Your task to perform on an android device: check google app version Image 0: 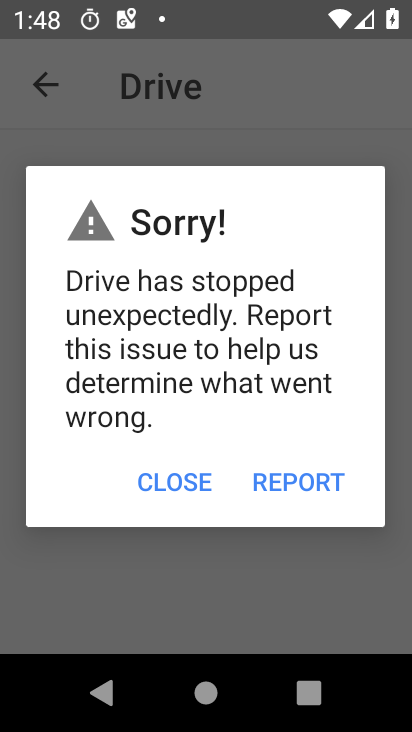
Step 0: click (262, 466)
Your task to perform on an android device: check google app version Image 1: 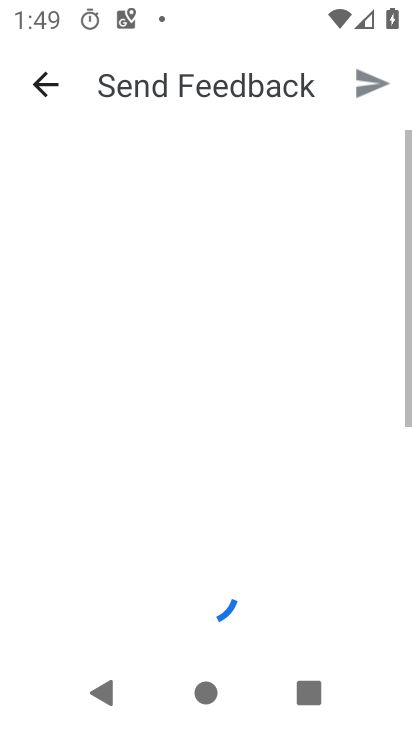
Step 1: click (273, 457)
Your task to perform on an android device: check google app version Image 2: 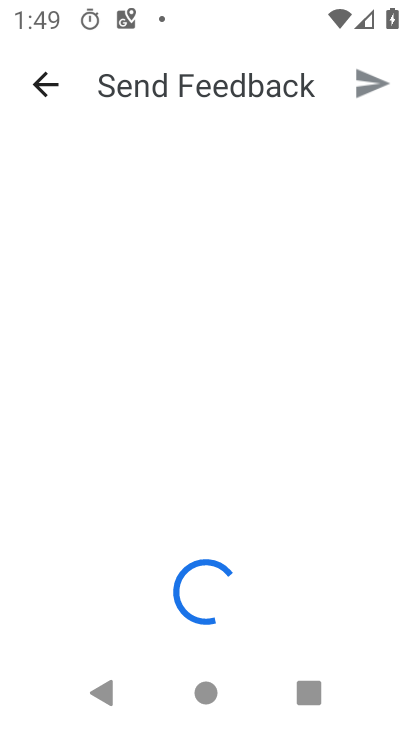
Step 2: press home button
Your task to perform on an android device: check google app version Image 3: 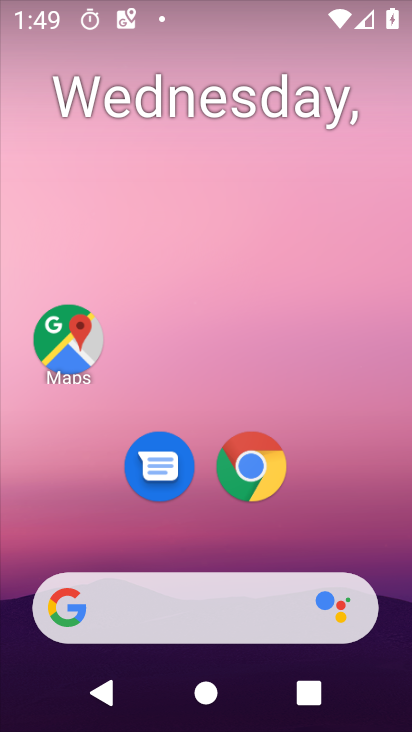
Step 3: click (241, 475)
Your task to perform on an android device: check google app version Image 4: 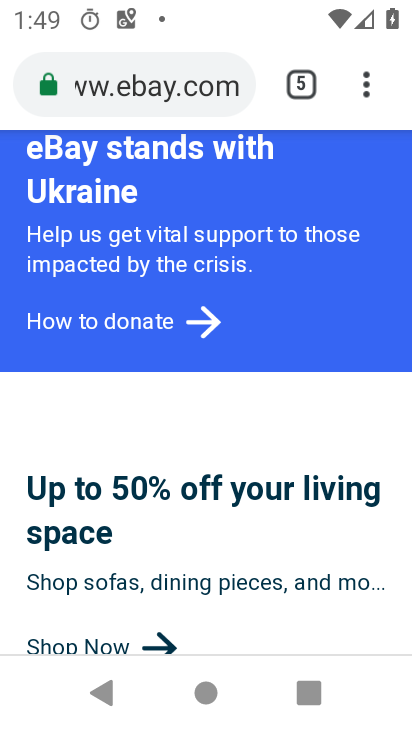
Step 4: press back button
Your task to perform on an android device: check google app version Image 5: 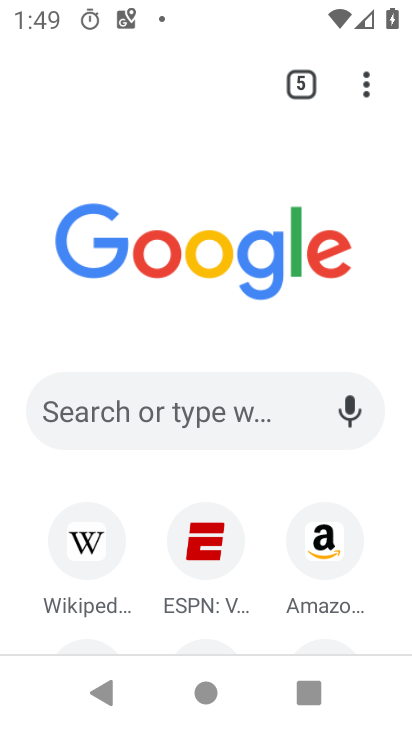
Step 5: press home button
Your task to perform on an android device: check google app version Image 6: 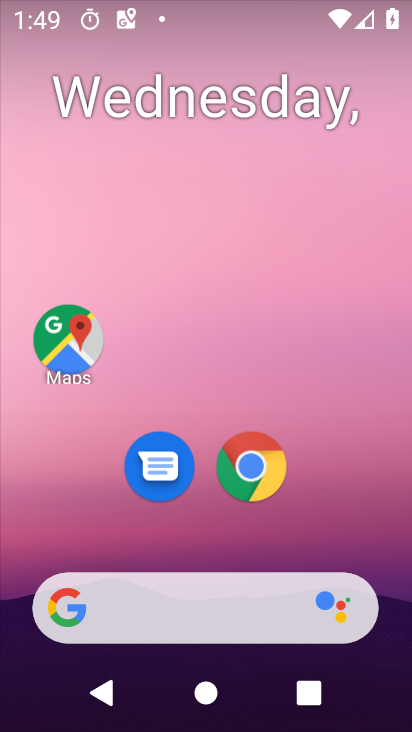
Step 6: click (178, 595)
Your task to perform on an android device: check google app version Image 7: 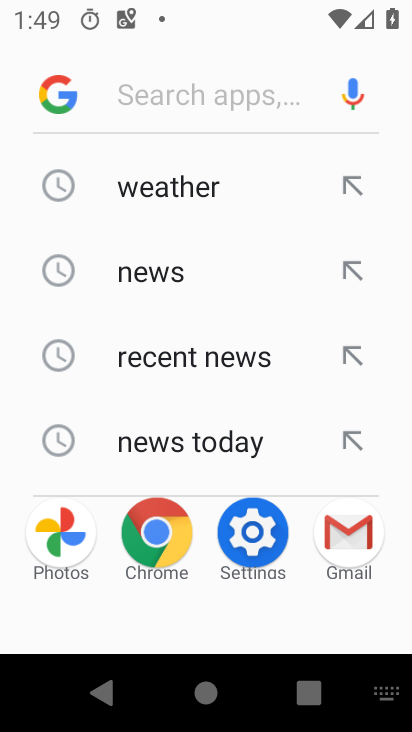
Step 7: click (67, 110)
Your task to perform on an android device: check google app version Image 8: 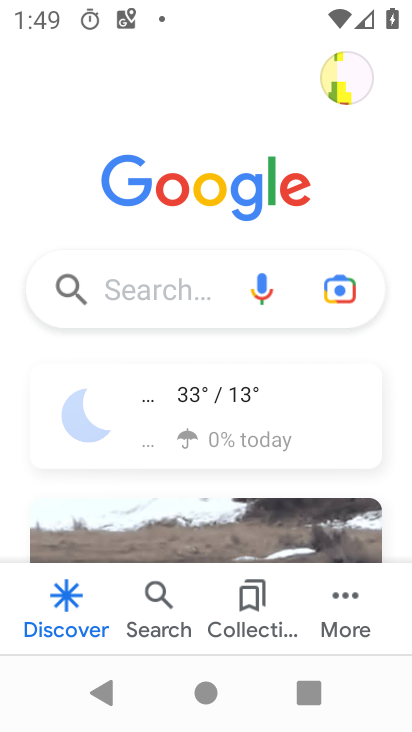
Step 8: click (340, 614)
Your task to perform on an android device: check google app version Image 9: 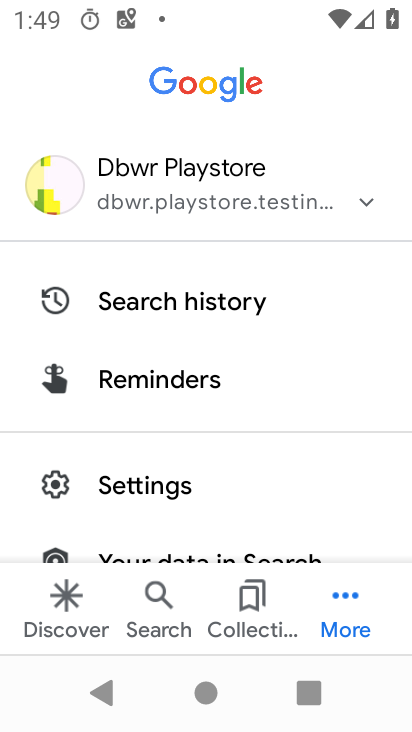
Step 9: drag from (288, 497) to (297, 227)
Your task to perform on an android device: check google app version Image 10: 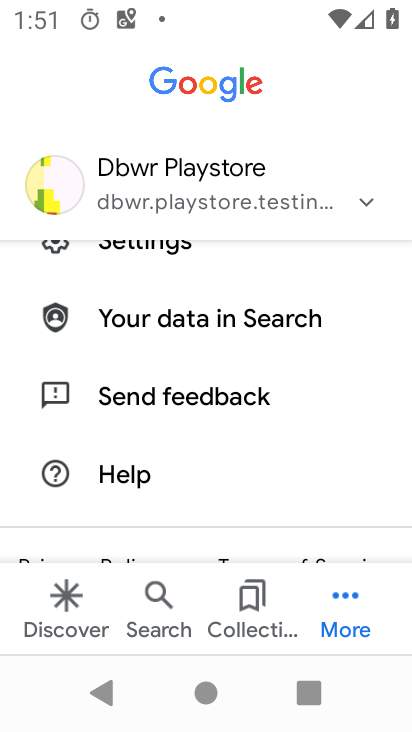
Step 10: click (204, 247)
Your task to perform on an android device: check google app version Image 11: 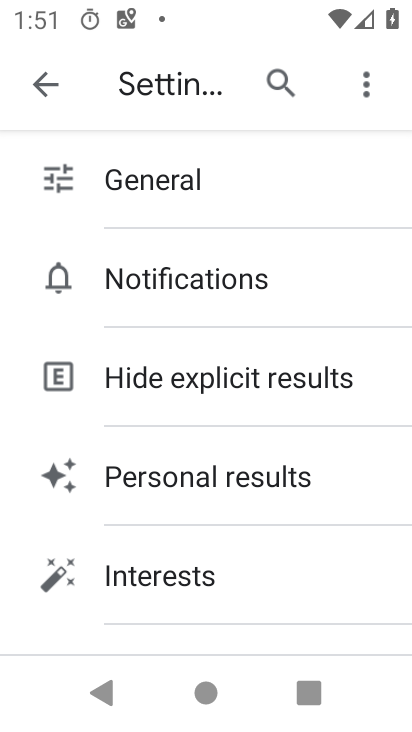
Step 11: drag from (256, 222) to (251, 483)
Your task to perform on an android device: check google app version Image 12: 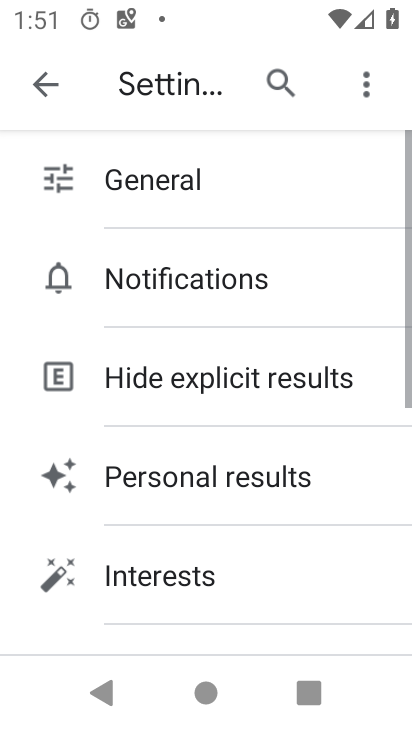
Step 12: drag from (248, 535) to (288, 206)
Your task to perform on an android device: check google app version Image 13: 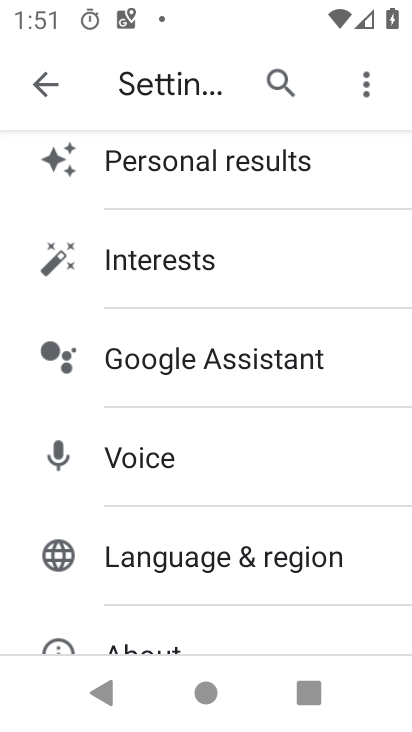
Step 13: drag from (229, 484) to (253, 183)
Your task to perform on an android device: check google app version Image 14: 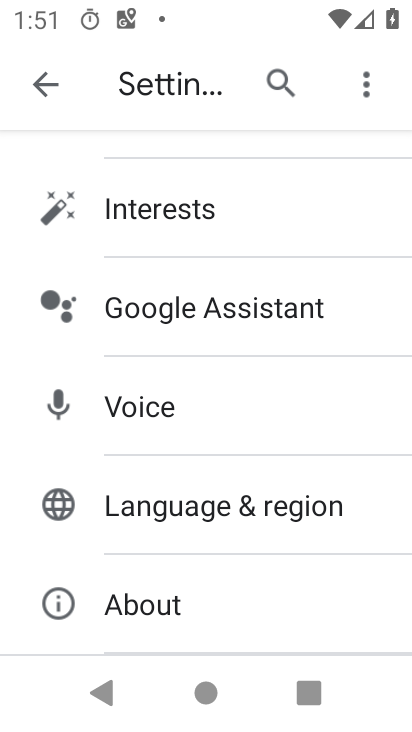
Step 14: click (211, 616)
Your task to perform on an android device: check google app version Image 15: 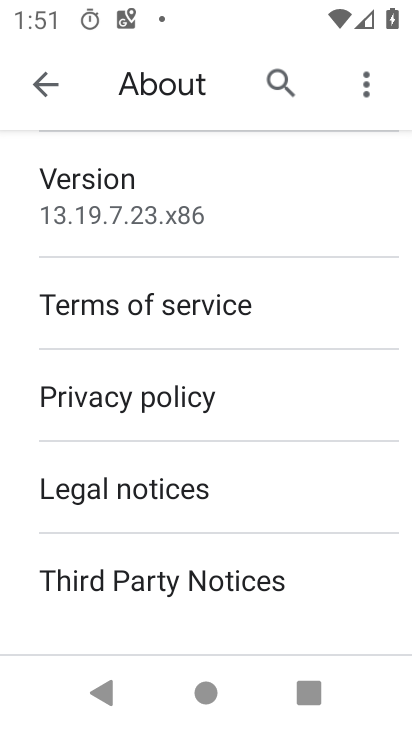
Step 15: task complete